Your task to perform on an android device: toggle improve location accuracy Image 0: 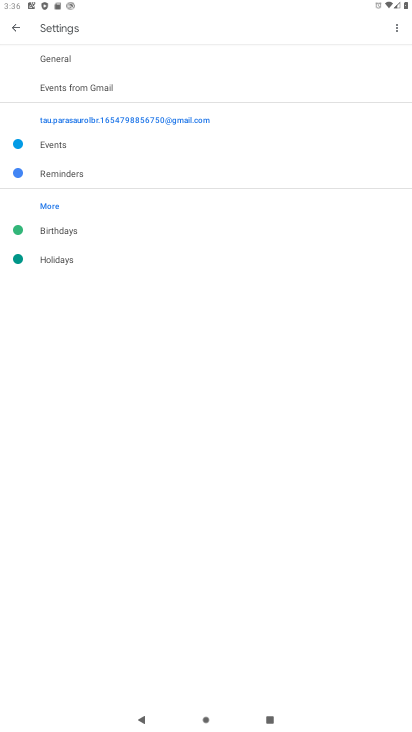
Step 0: press home button
Your task to perform on an android device: toggle improve location accuracy Image 1: 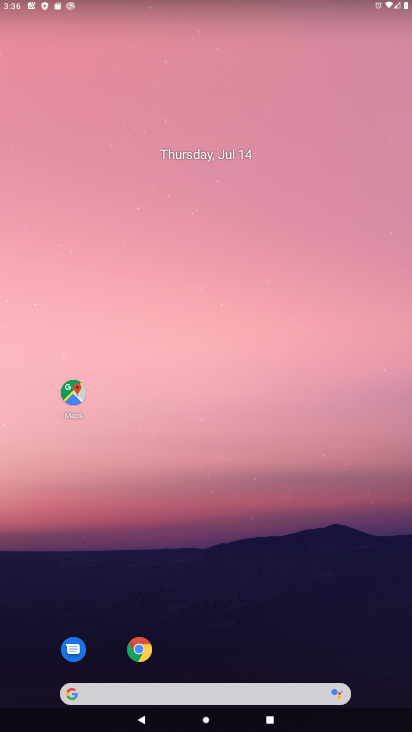
Step 1: drag from (226, 606) to (196, 20)
Your task to perform on an android device: toggle improve location accuracy Image 2: 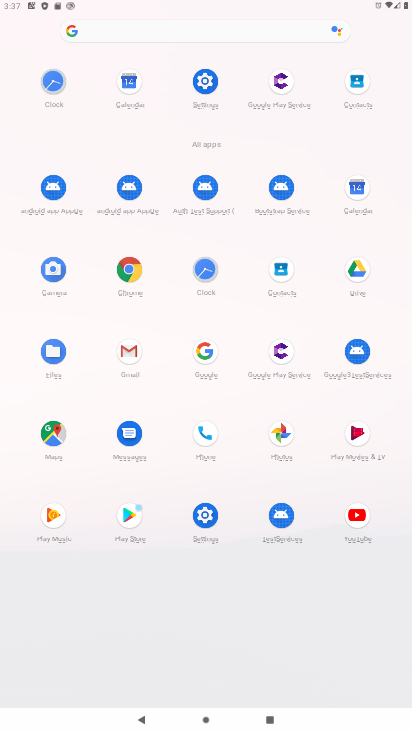
Step 2: click (203, 518)
Your task to perform on an android device: toggle improve location accuracy Image 3: 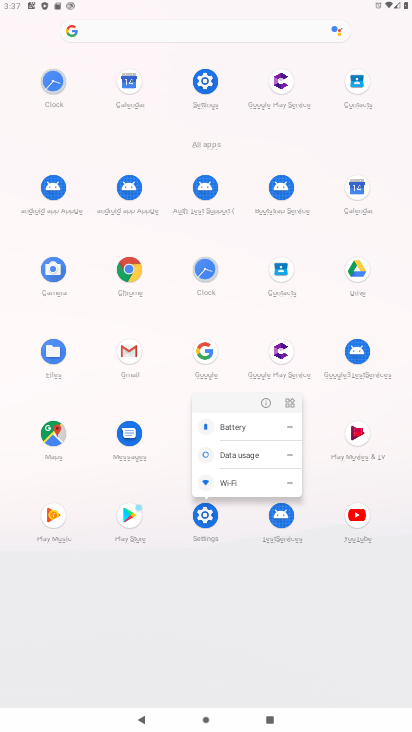
Step 3: click (207, 504)
Your task to perform on an android device: toggle improve location accuracy Image 4: 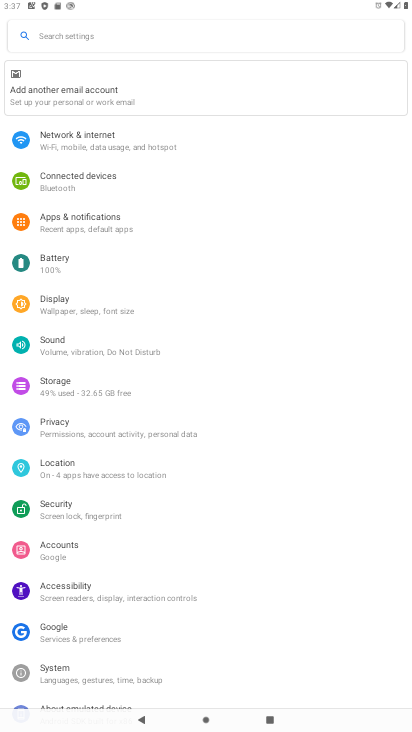
Step 4: click (92, 471)
Your task to perform on an android device: toggle improve location accuracy Image 5: 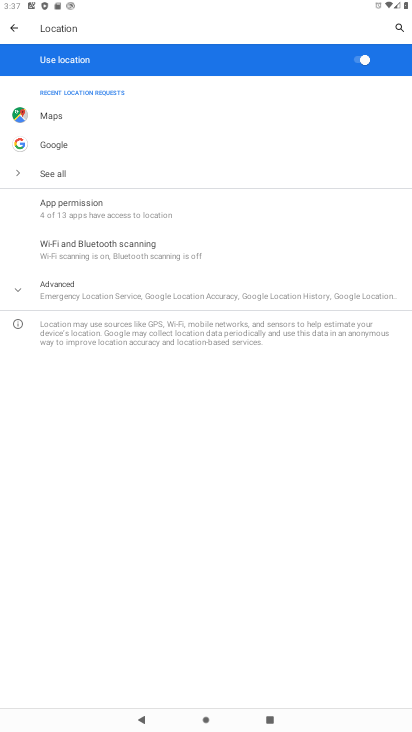
Step 5: click (112, 290)
Your task to perform on an android device: toggle improve location accuracy Image 6: 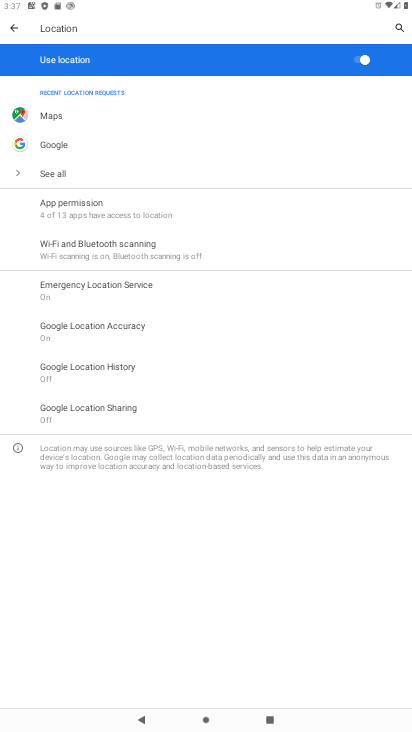
Step 6: click (122, 339)
Your task to perform on an android device: toggle improve location accuracy Image 7: 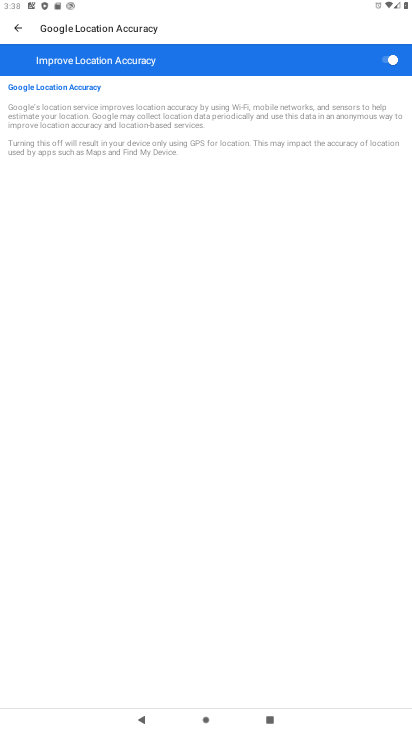
Step 7: click (370, 64)
Your task to perform on an android device: toggle improve location accuracy Image 8: 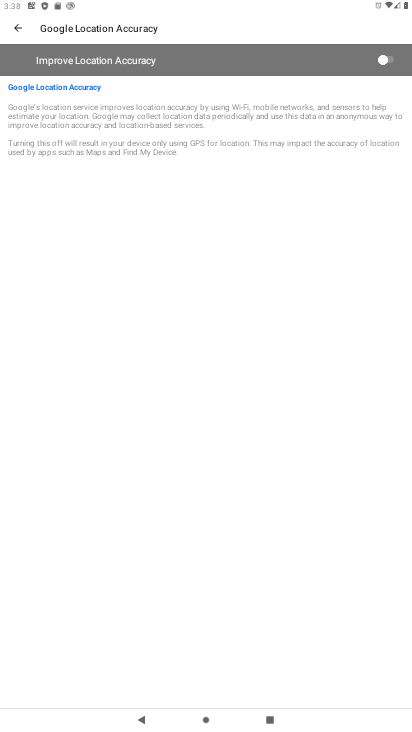
Step 8: task complete